Your task to perform on an android device: choose inbox layout in the gmail app Image 0: 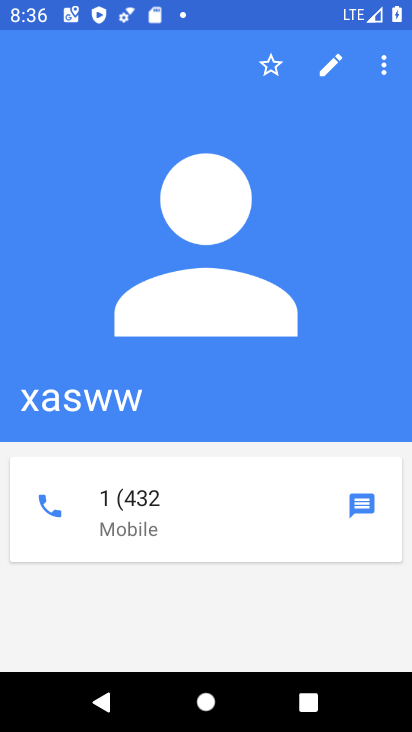
Step 0: press home button
Your task to perform on an android device: choose inbox layout in the gmail app Image 1: 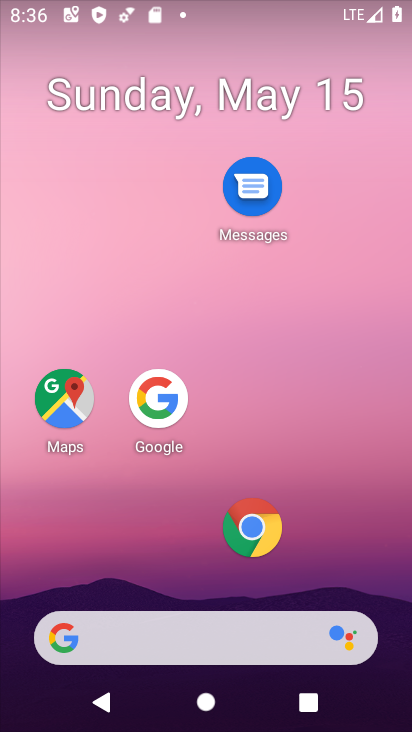
Step 1: drag from (178, 533) to (337, 79)
Your task to perform on an android device: choose inbox layout in the gmail app Image 2: 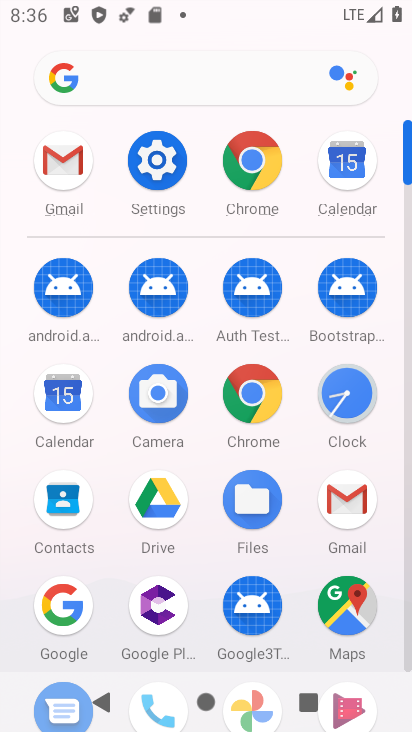
Step 2: click (349, 507)
Your task to perform on an android device: choose inbox layout in the gmail app Image 3: 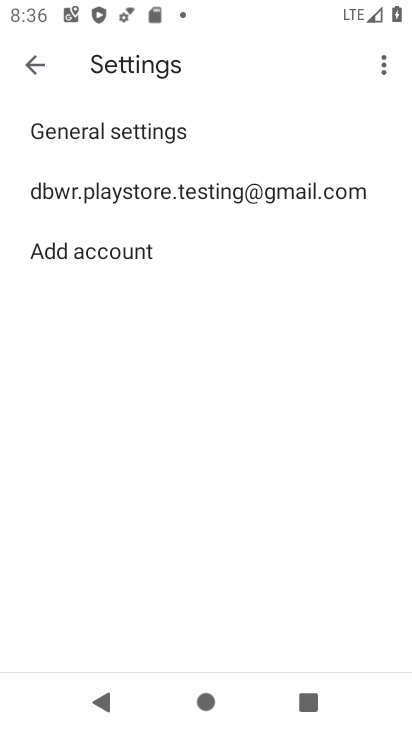
Step 3: click (282, 182)
Your task to perform on an android device: choose inbox layout in the gmail app Image 4: 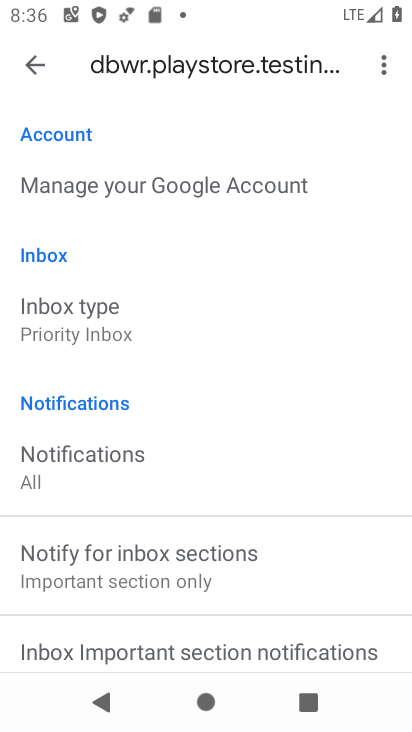
Step 4: click (78, 319)
Your task to perform on an android device: choose inbox layout in the gmail app Image 5: 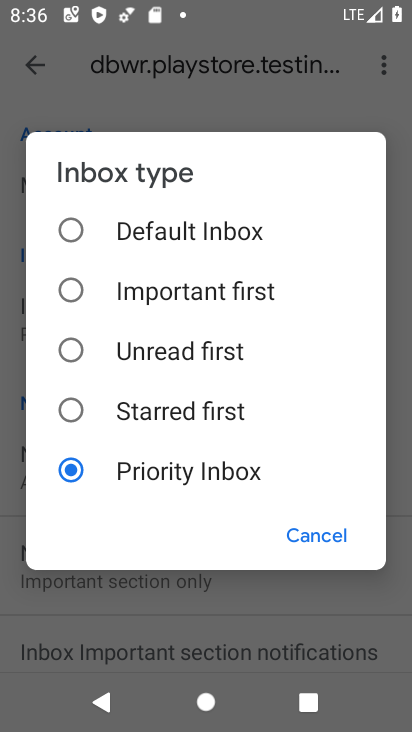
Step 5: click (77, 230)
Your task to perform on an android device: choose inbox layout in the gmail app Image 6: 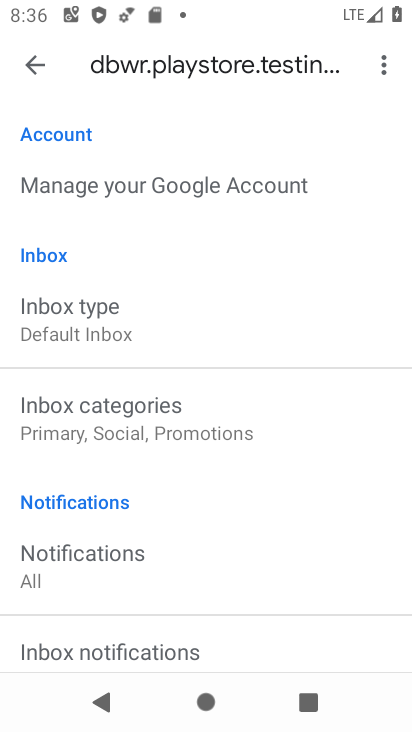
Step 6: task complete